Your task to perform on an android device: add a label to a message in the gmail app Image 0: 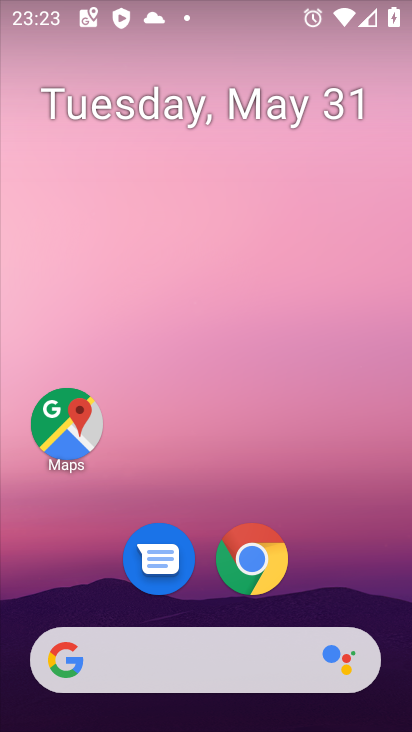
Step 0: drag from (319, 525) to (363, 107)
Your task to perform on an android device: add a label to a message in the gmail app Image 1: 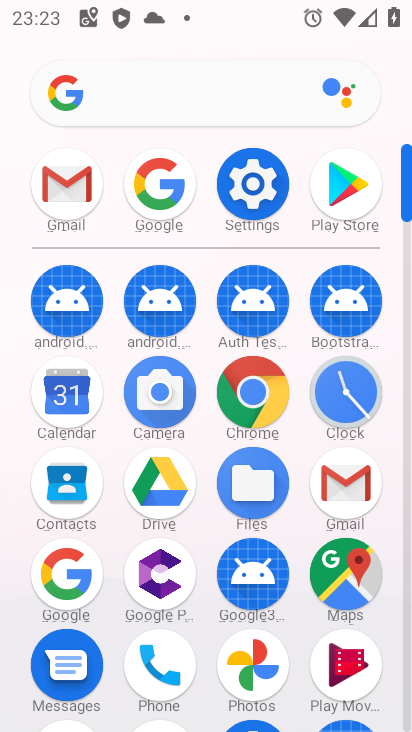
Step 1: click (69, 189)
Your task to perform on an android device: add a label to a message in the gmail app Image 2: 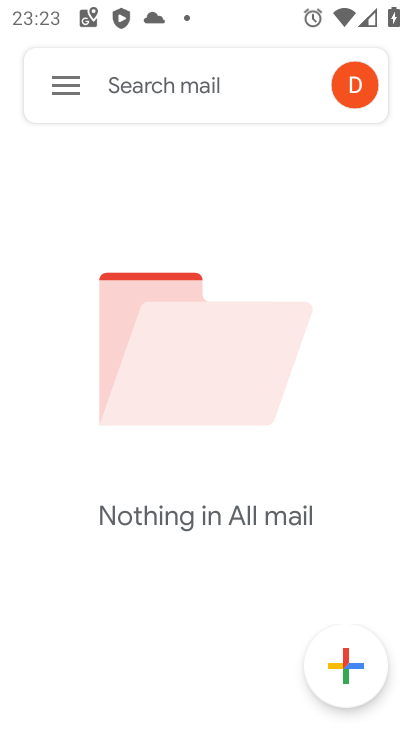
Step 2: task complete